Your task to perform on an android device: turn off notifications settings in the gmail app Image 0: 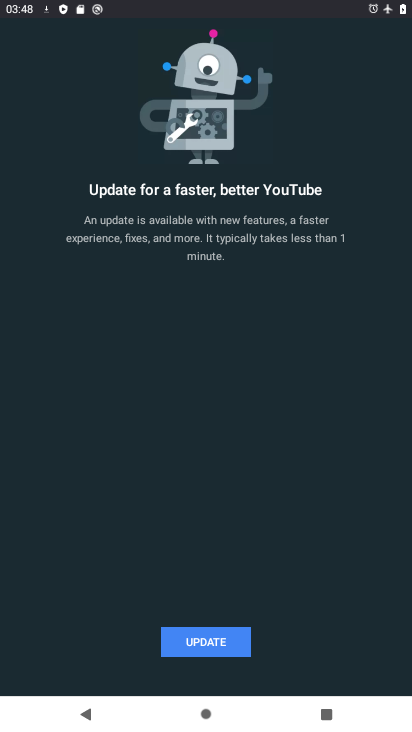
Step 0: press home button
Your task to perform on an android device: turn off notifications settings in the gmail app Image 1: 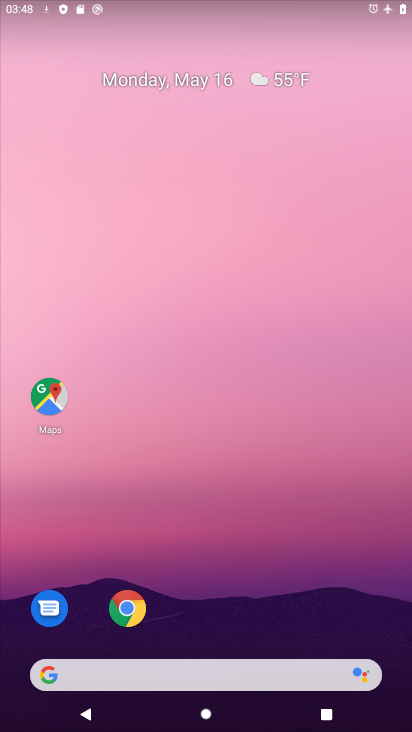
Step 1: drag from (203, 641) to (245, 258)
Your task to perform on an android device: turn off notifications settings in the gmail app Image 2: 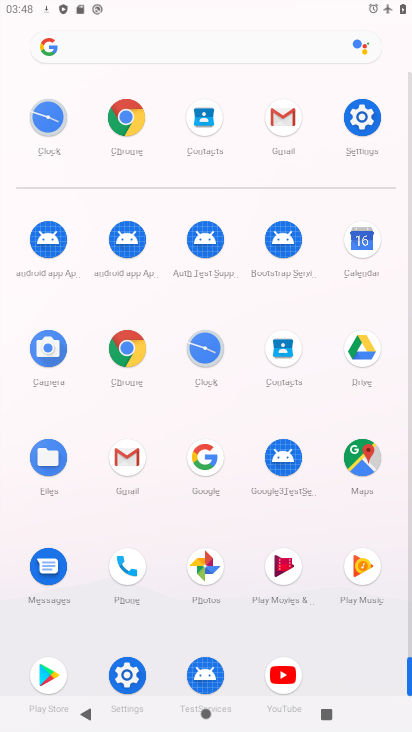
Step 2: click (281, 137)
Your task to perform on an android device: turn off notifications settings in the gmail app Image 3: 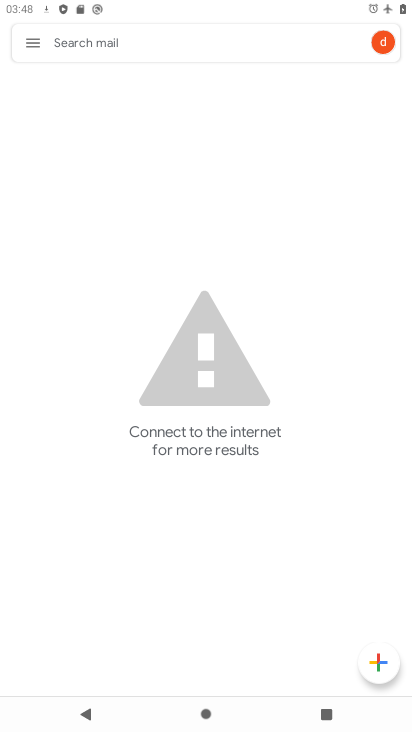
Step 3: click (25, 43)
Your task to perform on an android device: turn off notifications settings in the gmail app Image 4: 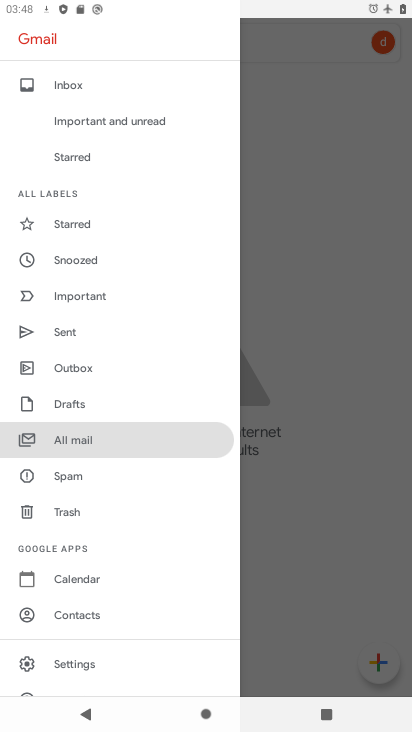
Step 4: click (93, 655)
Your task to perform on an android device: turn off notifications settings in the gmail app Image 5: 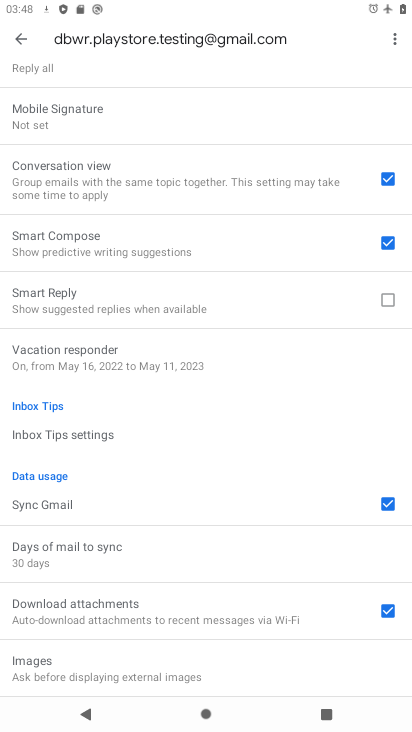
Step 5: drag from (159, 601) to (230, 315)
Your task to perform on an android device: turn off notifications settings in the gmail app Image 6: 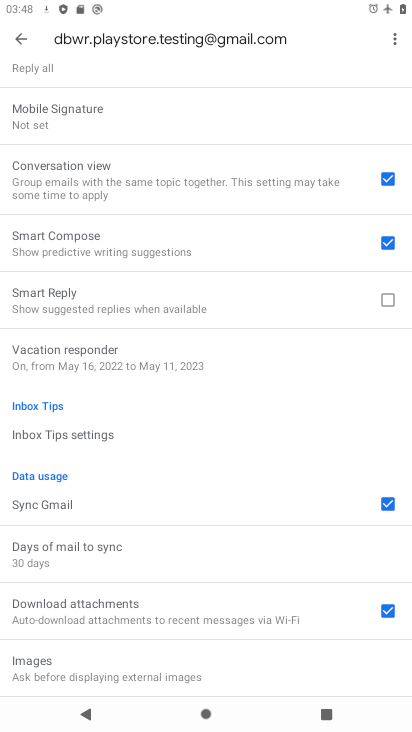
Step 6: drag from (200, 340) to (197, 572)
Your task to perform on an android device: turn off notifications settings in the gmail app Image 7: 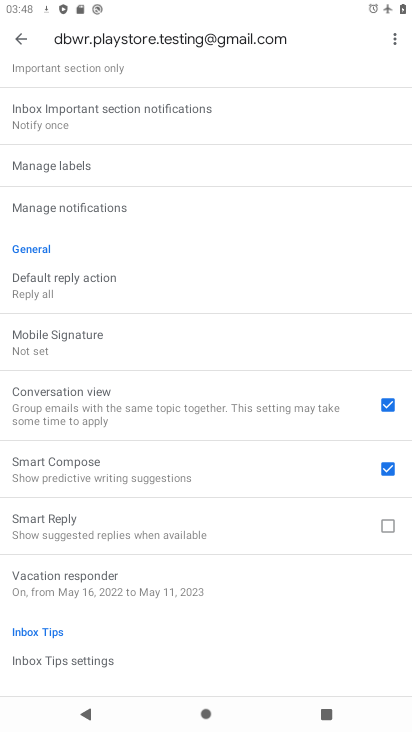
Step 7: click (170, 213)
Your task to perform on an android device: turn off notifications settings in the gmail app Image 8: 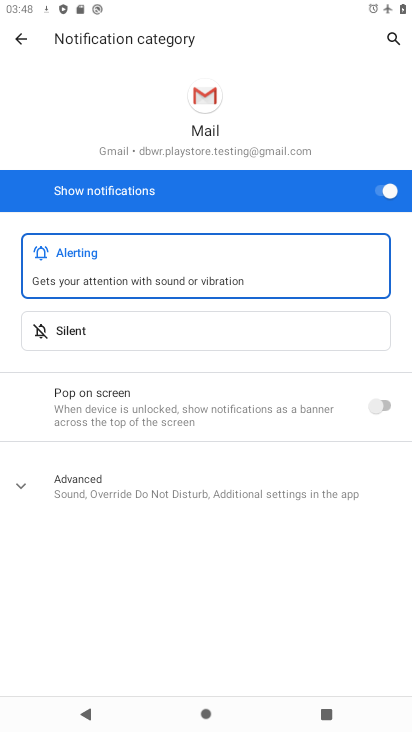
Step 8: click (380, 185)
Your task to perform on an android device: turn off notifications settings in the gmail app Image 9: 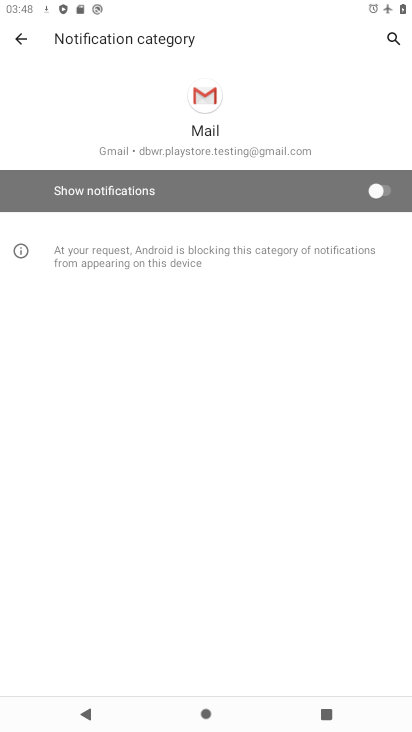
Step 9: task complete